Your task to perform on an android device: Open sound settings Image 0: 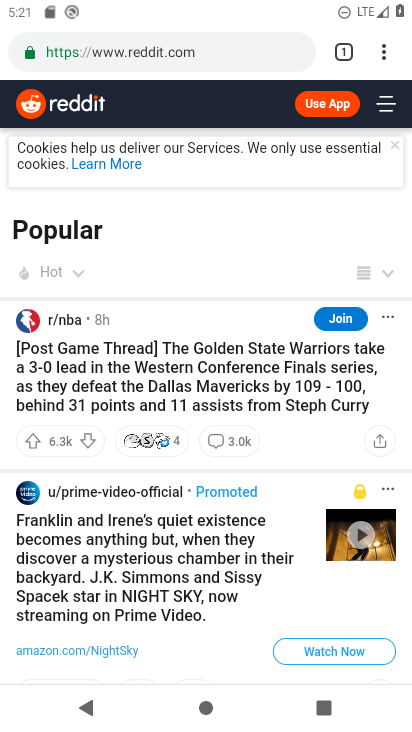
Step 0: press home button
Your task to perform on an android device: Open sound settings Image 1: 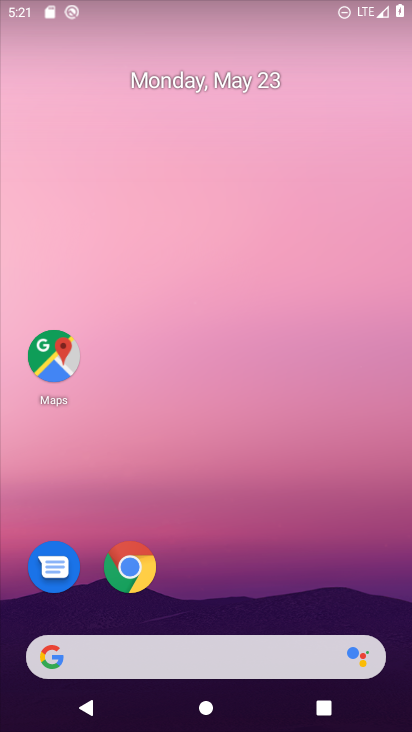
Step 1: drag from (258, 551) to (260, 103)
Your task to perform on an android device: Open sound settings Image 2: 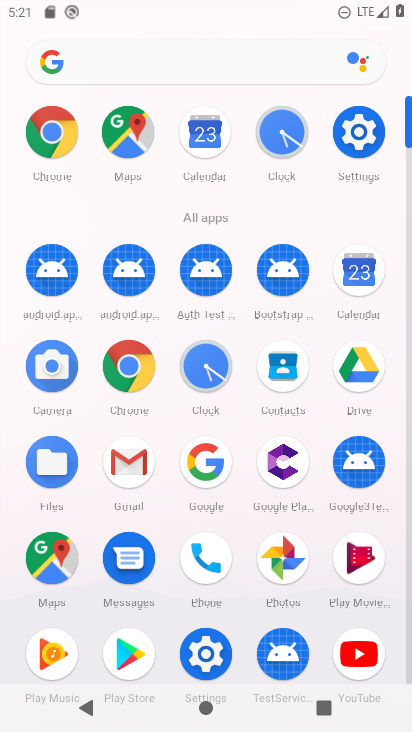
Step 2: click (356, 134)
Your task to perform on an android device: Open sound settings Image 3: 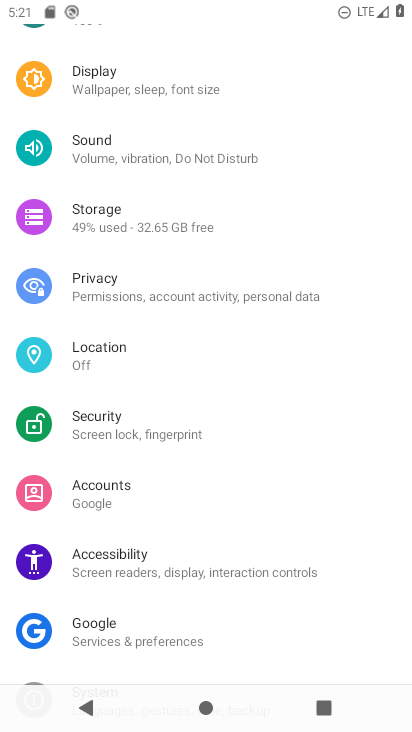
Step 3: click (143, 165)
Your task to perform on an android device: Open sound settings Image 4: 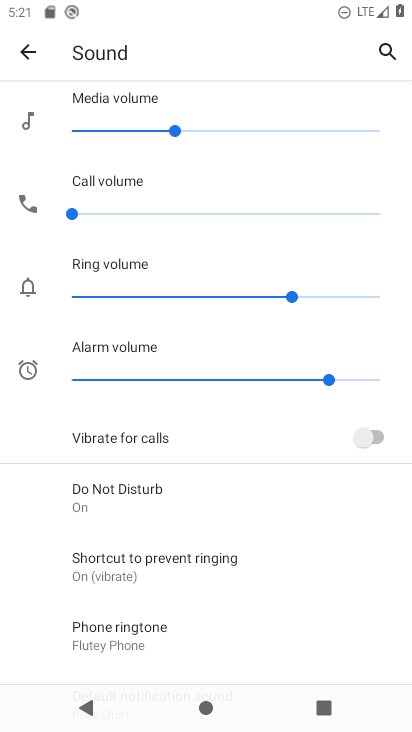
Step 4: task complete